Your task to perform on an android device: Turn on the flashlight Image 0: 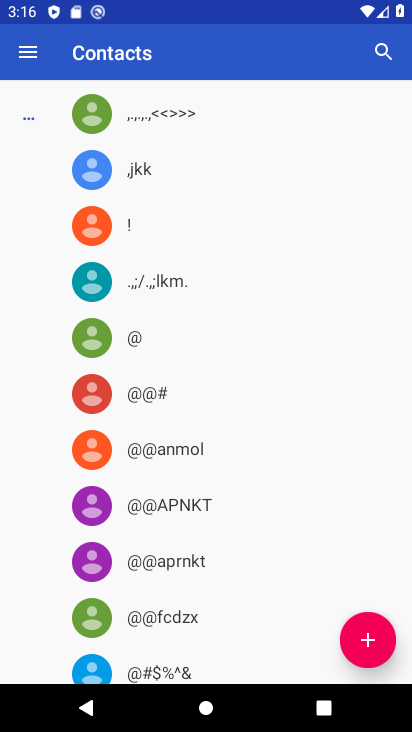
Step 0: press back button
Your task to perform on an android device: Turn on the flashlight Image 1: 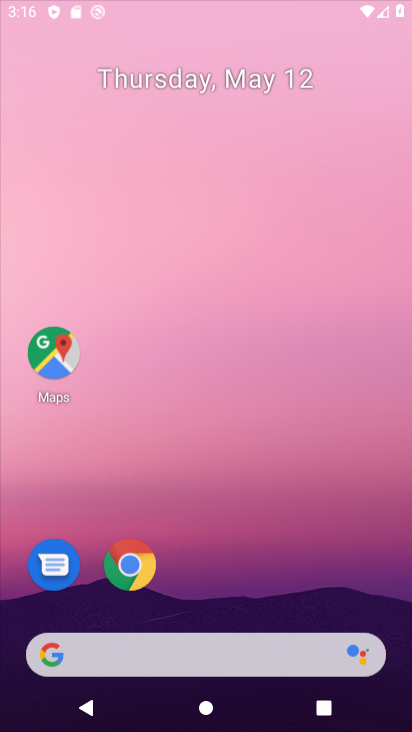
Step 1: task complete